Your task to perform on an android device: Open internet settings Image 0: 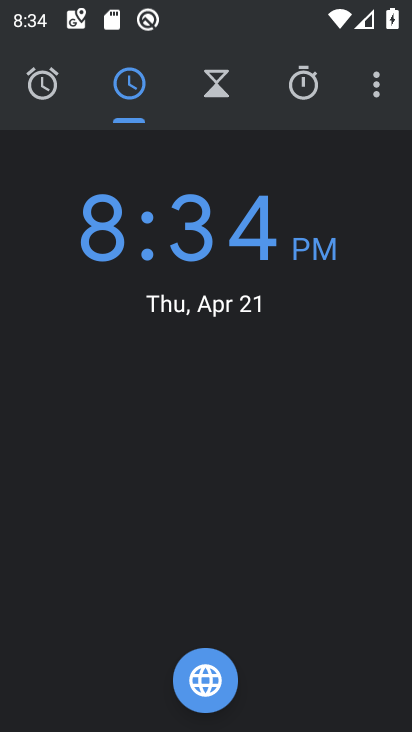
Step 0: press home button
Your task to perform on an android device: Open internet settings Image 1: 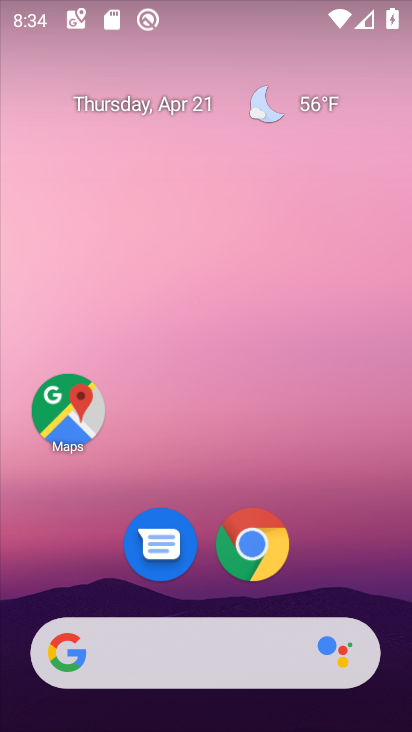
Step 1: drag from (216, 719) to (216, 122)
Your task to perform on an android device: Open internet settings Image 2: 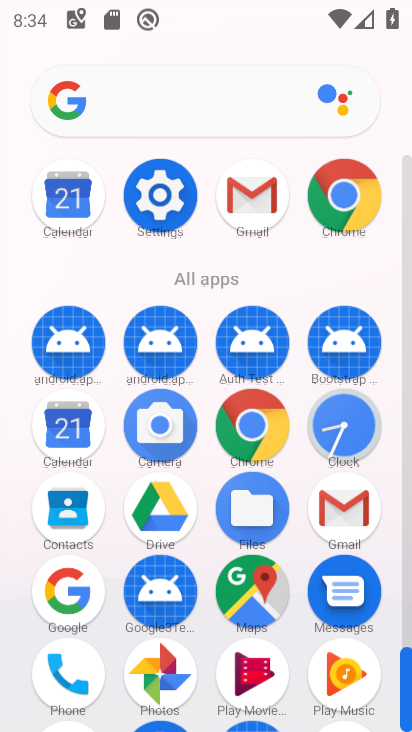
Step 2: click (157, 207)
Your task to perform on an android device: Open internet settings Image 3: 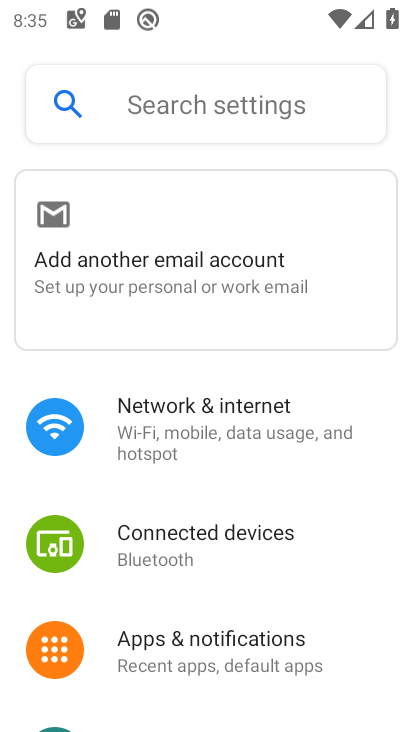
Step 3: click (180, 425)
Your task to perform on an android device: Open internet settings Image 4: 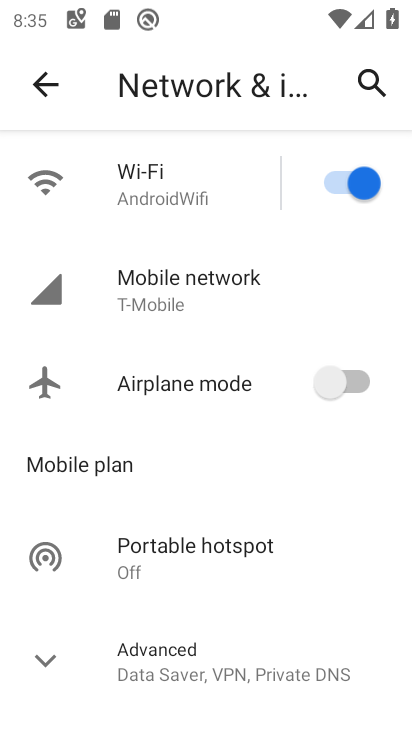
Step 4: task complete